Your task to perform on an android device: Open settings on Google Maps Image 0: 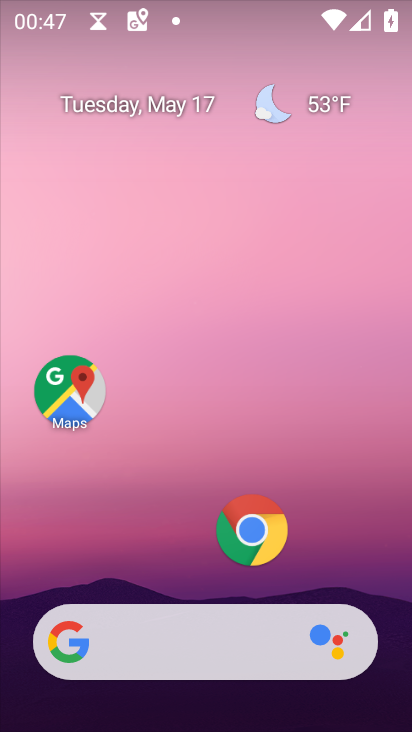
Step 0: drag from (329, 534) to (407, 289)
Your task to perform on an android device: Open settings on Google Maps Image 1: 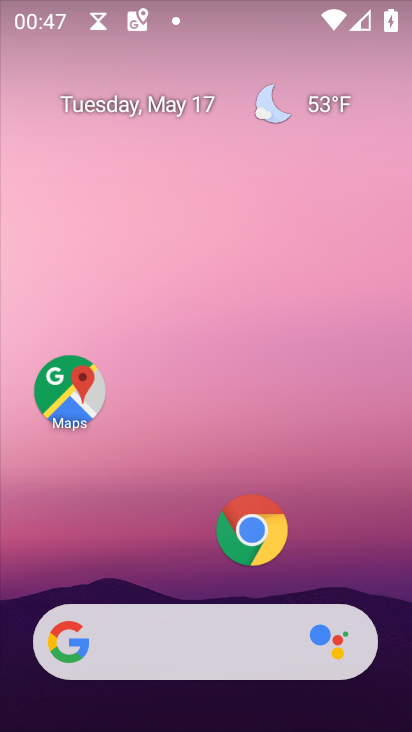
Step 1: click (98, 405)
Your task to perform on an android device: Open settings on Google Maps Image 2: 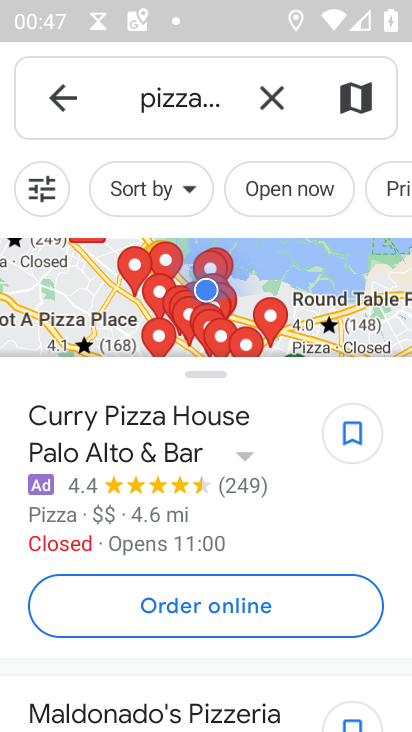
Step 2: click (59, 98)
Your task to perform on an android device: Open settings on Google Maps Image 3: 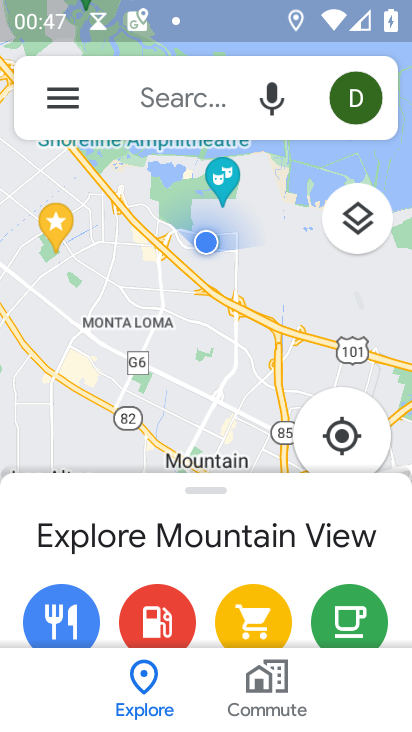
Step 3: click (81, 101)
Your task to perform on an android device: Open settings on Google Maps Image 4: 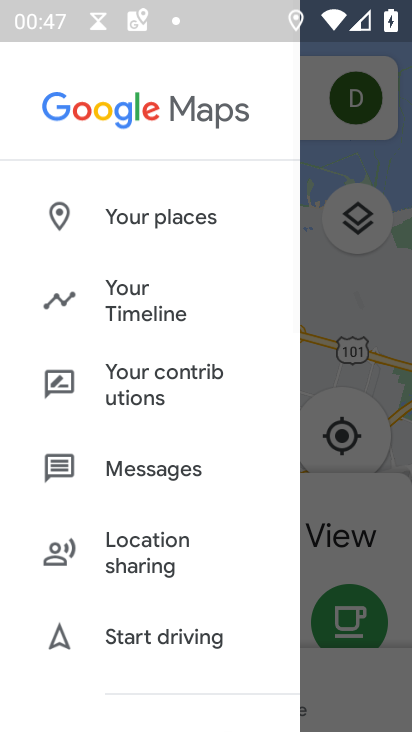
Step 4: drag from (136, 630) to (185, 127)
Your task to perform on an android device: Open settings on Google Maps Image 5: 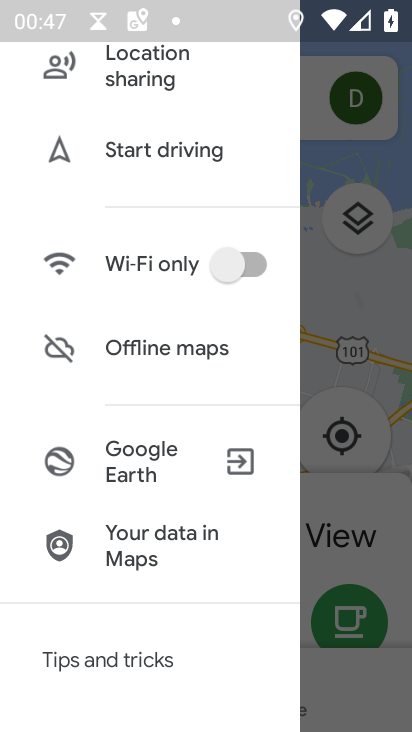
Step 5: drag from (215, 381) to (223, 698)
Your task to perform on an android device: Open settings on Google Maps Image 6: 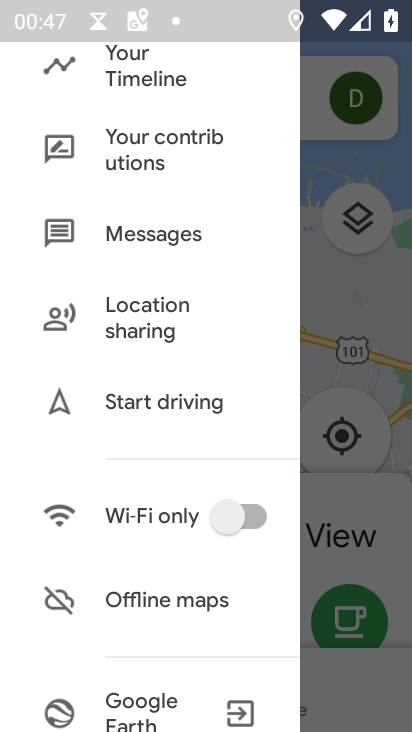
Step 6: drag from (103, 233) to (178, 654)
Your task to perform on an android device: Open settings on Google Maps Image 7: 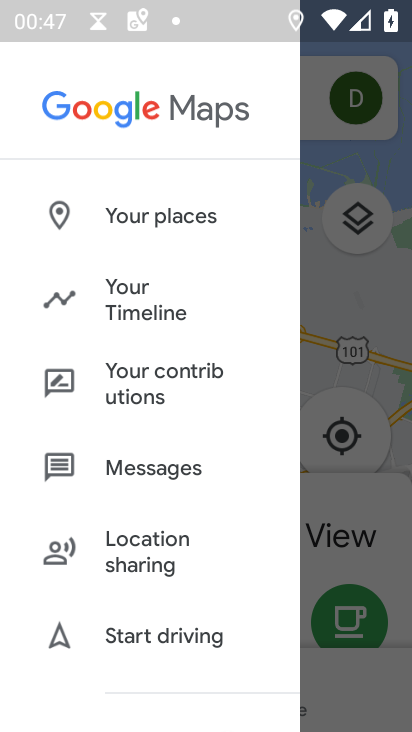
Step 7: click (347, 306)
Your task to perform on an android device: Open settings on Google Maps Image 8: 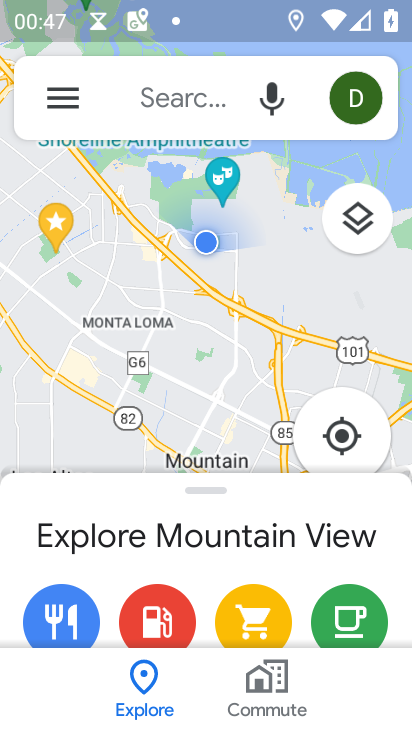
Step 8: click (351, 100)
Your task to perform on an android device: Open settings on Google Maps Image 9: 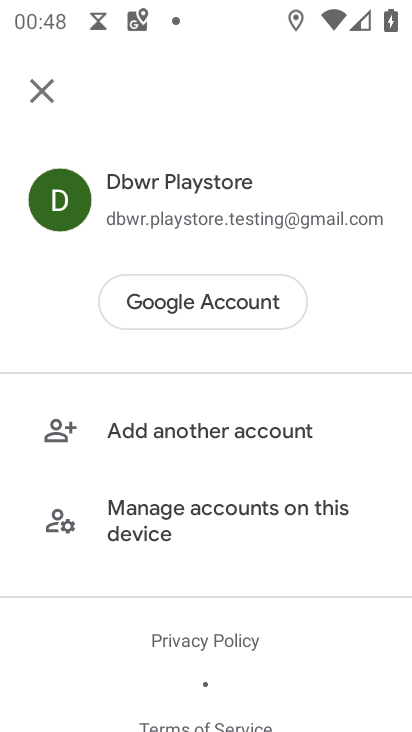
Step 9: task complete